Your task to perform on an android device: Is it going to rain this weekend? Image 0: 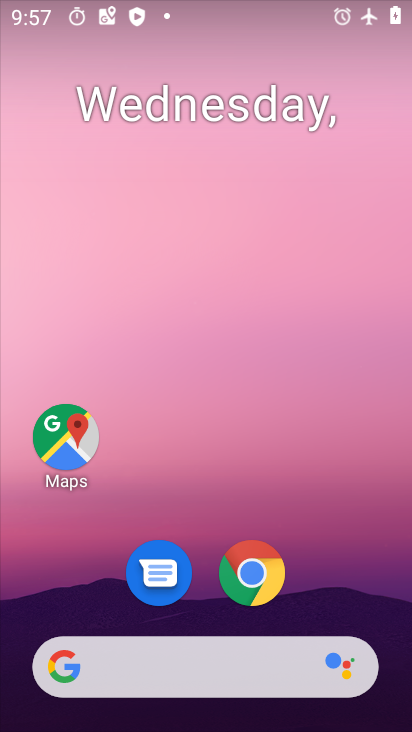
Step 0: drag from (320, 643) to (296, 302)
Your task to perform on an android device: Is it going to rain this weekend? Image 1: 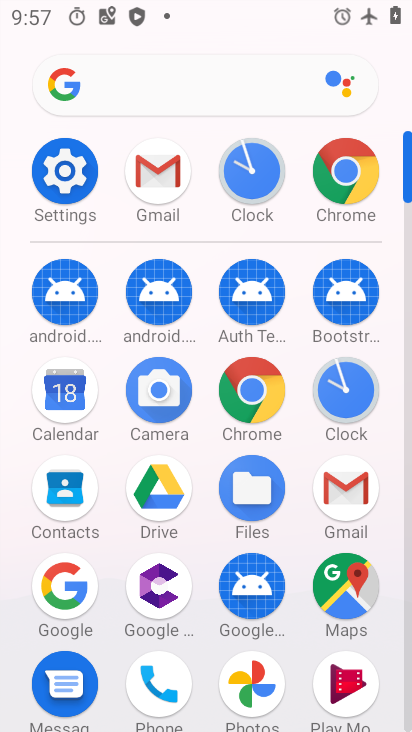
Step 1: click (75, 396)
Your task to perform on an android device: Is it going to rain this weekend? Image 2: 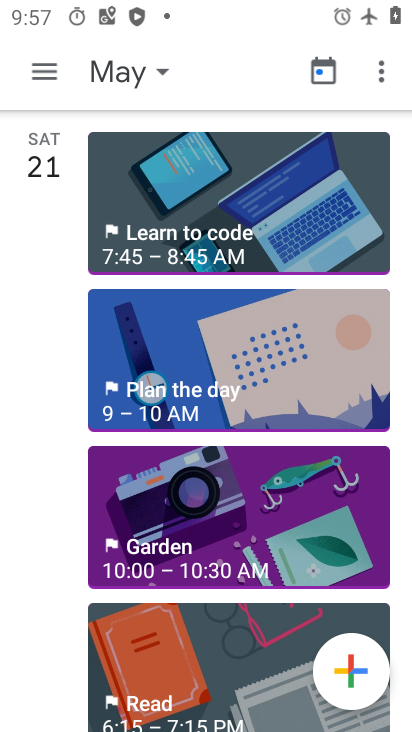
Step 2: drag from (203, 534) to (212, 463)
Your task to perform on an android device: Is it going to rain this weekend? Image 3: 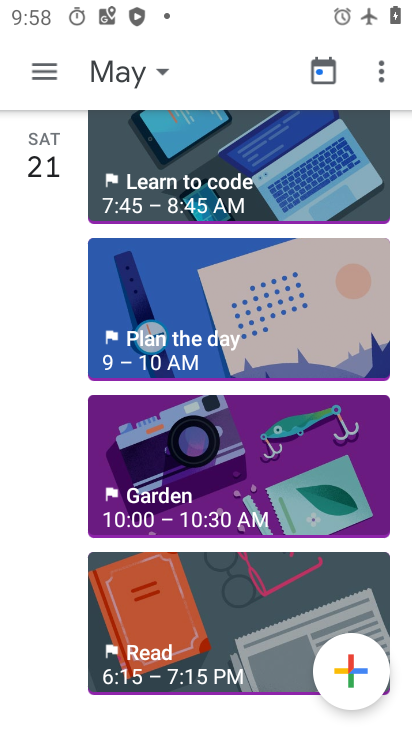
Step 3: press home button
Your task to perform on an android device: Is it going to rain this weekend? Image 4: 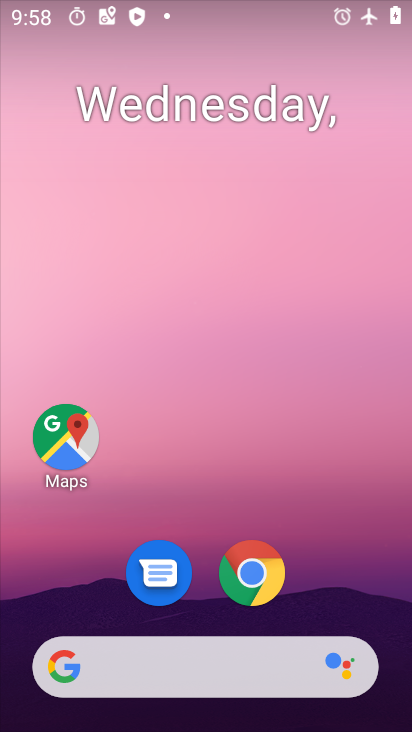
Step 4: drag from (320, 669) to (320, 301)
Your task to perform on an android device: Is it going to rain this weekend? Image 5: 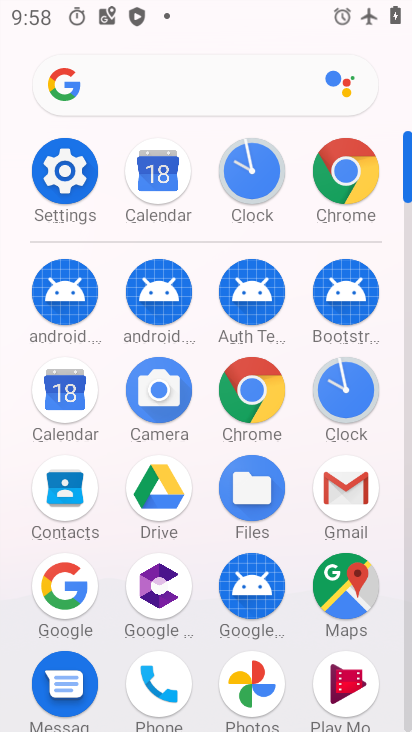
Step 5: click (57, 605)
Your task to perform on an android device: Is it going to rain this weekend? Image 6: 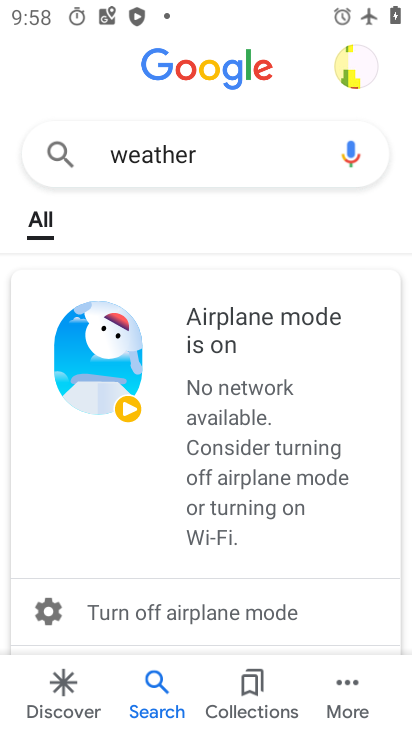
Step 6: task complete